Your task to perform on an android device: Go to Android settings Image 0: 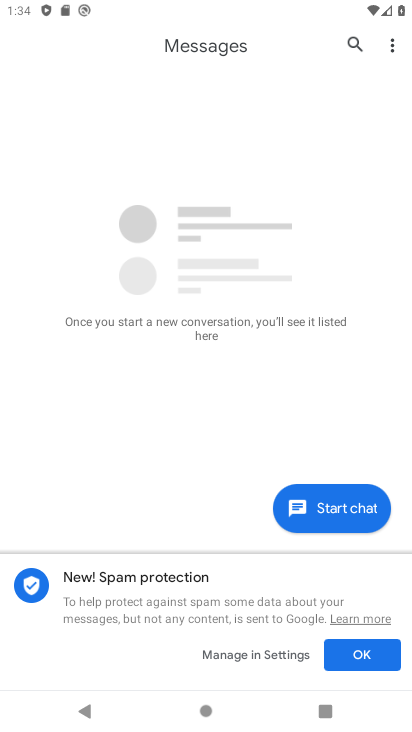
Step 0: press home button
Your task to perform on an android device: Go to Android settings Image 1: 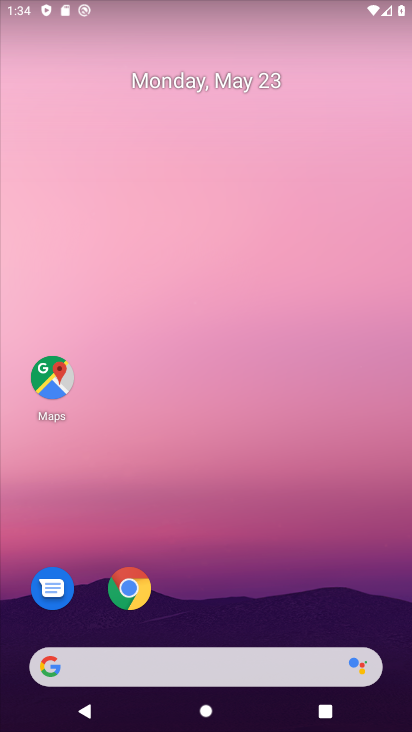
Step 1: drag from (229, 720) to (177, 155)
Your task to perform on an android device: Go to Android settings Image 2: 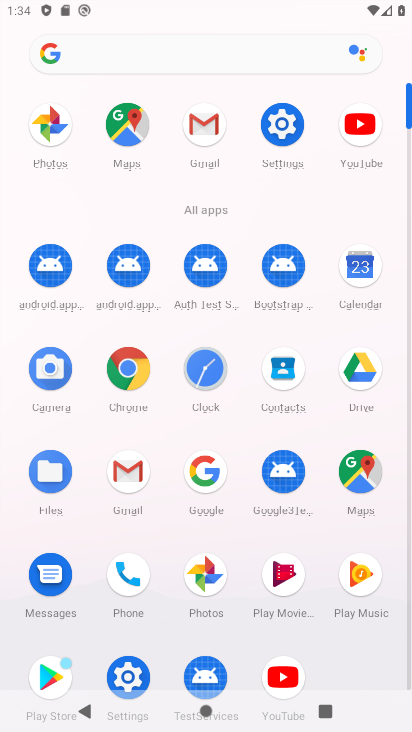
Step 2: click (282, 114)
Your task to perform on an android device: Go to Android settings Image 3: 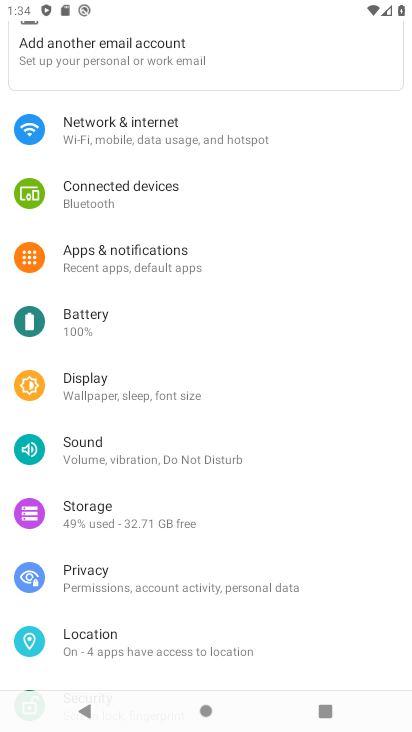
Step 3: task complete